Your task to perform on an android device: choose inbox layout in the gmail app Image 0: 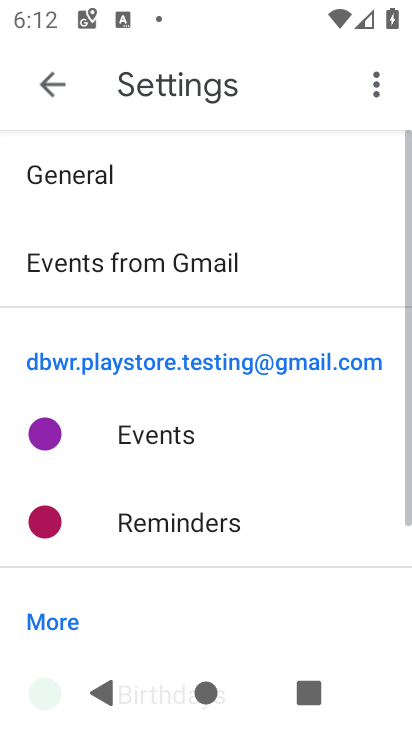
Step 0: press home button
Your task to perform on an android device: choose inbox layout in the gmail app Image 1: 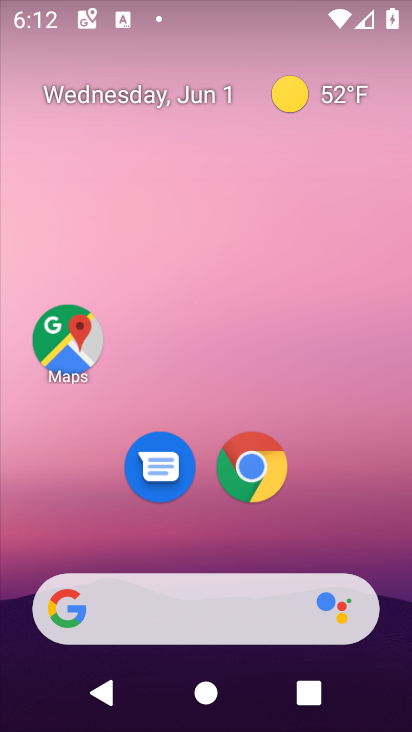
Step 1: drag from (342, 554) to (179, 64)
Your task to perform on an android device: choose inbox layout in the gmail app Image 2: 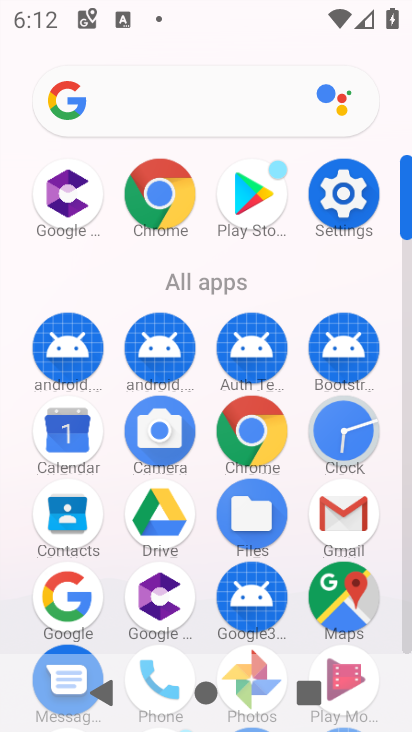
Step 2: click (341, 518)
Your task to perform on an android device: choose inbox layout in the gmail app Image 3: 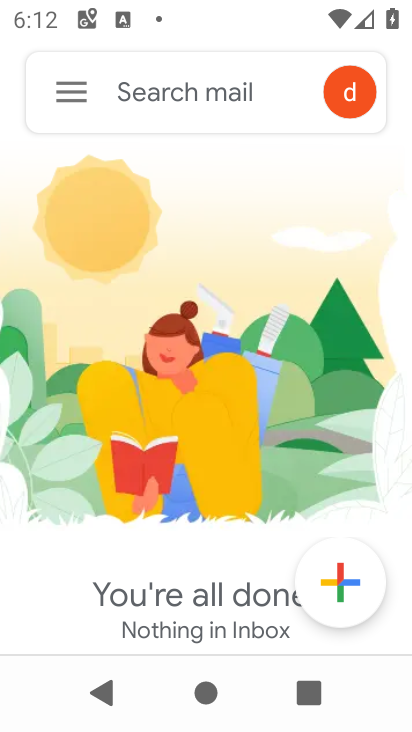
Step 3: click (66, 83)
Your task to perform on an android device: choose inbox layout in the gmail app Image 4: 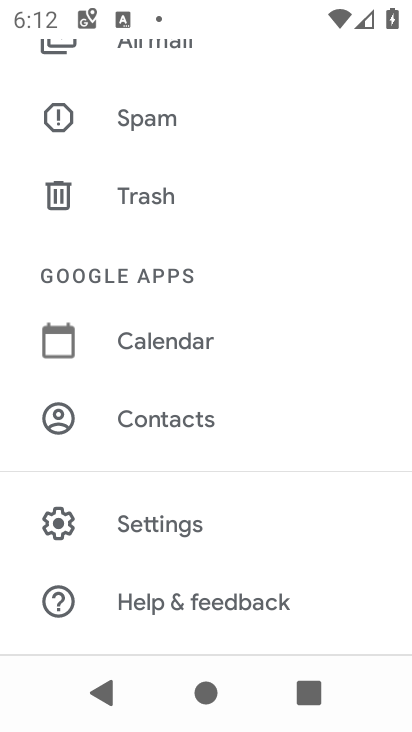
Step 4: click (194, 532)
Your task to perform on an android device: choose inbox layout in the gmail app Image 5: 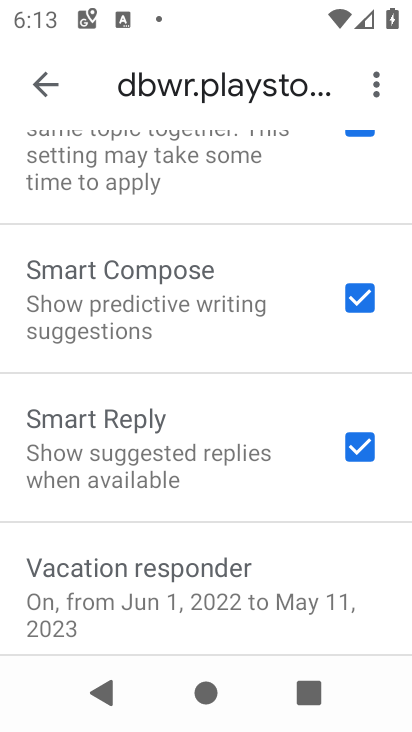
Step 5: drag from (210, 213) to (181, 590)
Your task to perform on an android device: choose inbox layout in the gmail app Image 6: 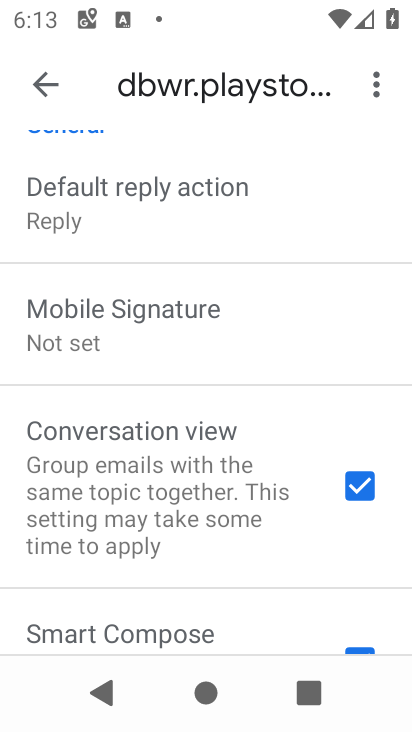
Step 6: drag from (209, 223) to (157, 651)
Your task to perform on an android device: choose inbox layout in the gmail app Image 7: 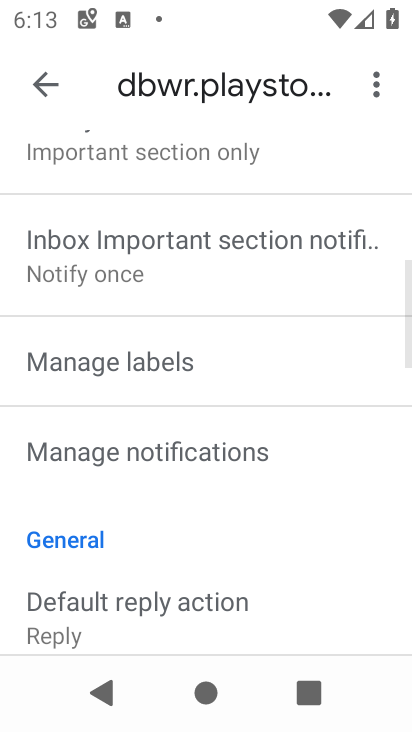
Step 7: drag from (207, 260) to (156, 646)
Your task to perform on an android device: choose inbox layout in the gmail app Image 8: 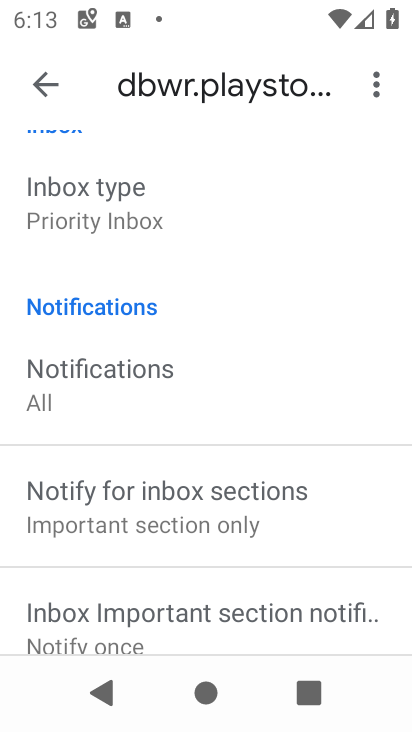
Step 8: click (140, 200)
Your task to perform on an android device: choose inbox layout in the gmail app Image 9: 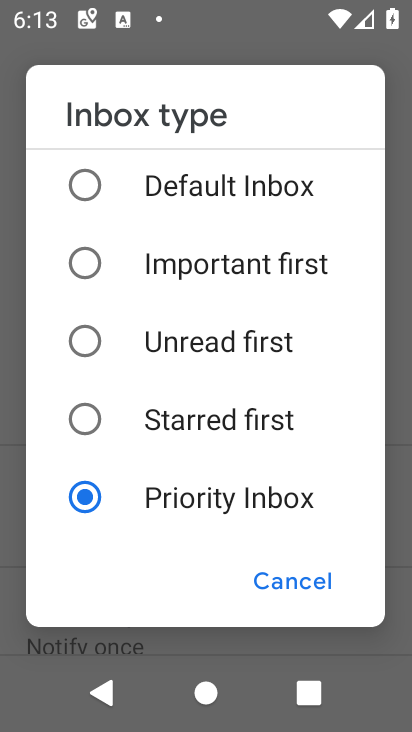
Step 9: click (197, 263)
Your task to perform on an android device: choose inbox layout in the gmail app Image 10: 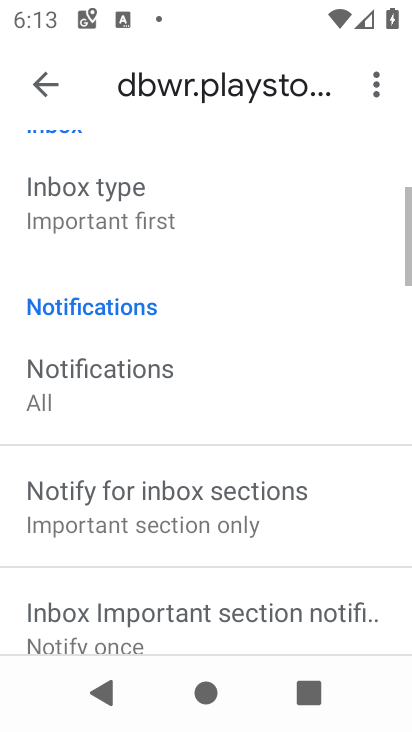
Step 10: task complete